Your task to perform on an android device: Go to accessibility settings Image 0: 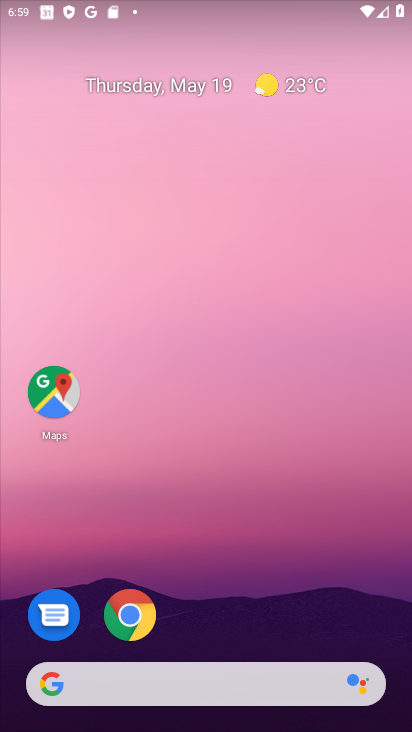
Step 0: drag from (373, 614) to (242, 19)
Your task to perform on an android device: Go to accessibility settings Image 1: 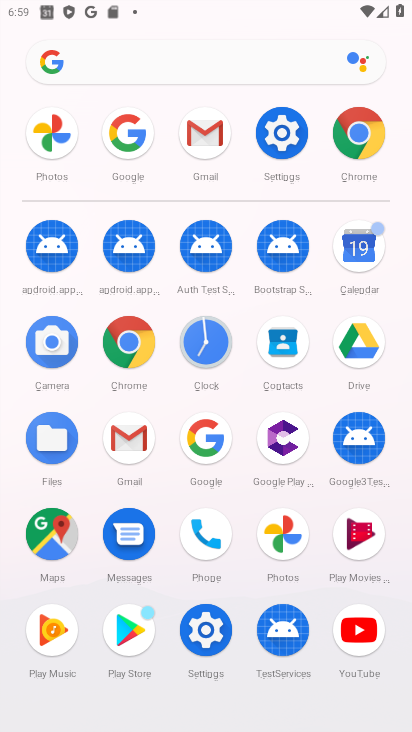
Step 1: click (214, 632)
Your task to perform on an android device: Go to accessibility settings Image 2: 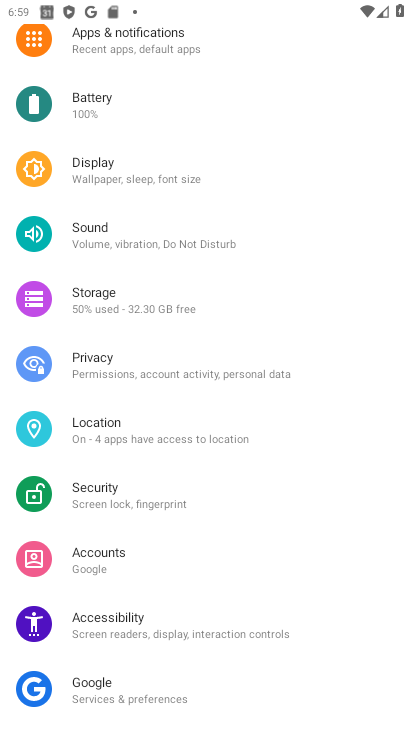
Step 2: click (78, 620)
Your task to perform on an android device: Go to accessibility settings Image 3: 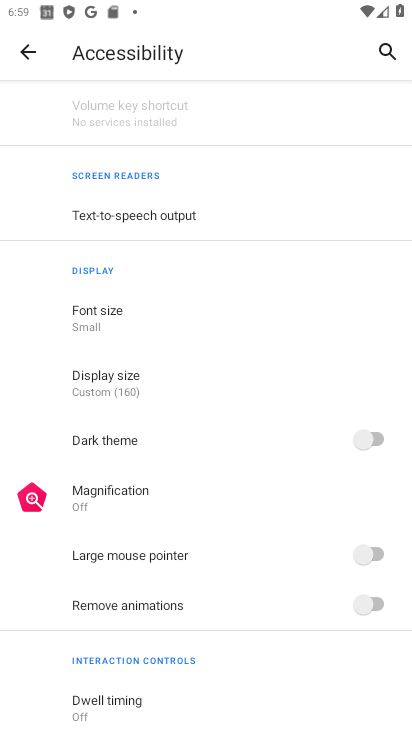
Step 3: task complete